Your task to perform on an android device: Open battery settings Image 0: 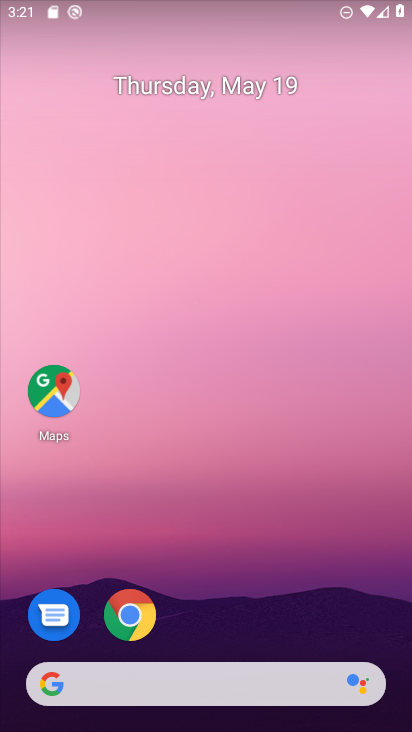
Step 0: drag from (250, 602) to (132, 72)
Your task to perform on an android device: Open battery settings Image 1: 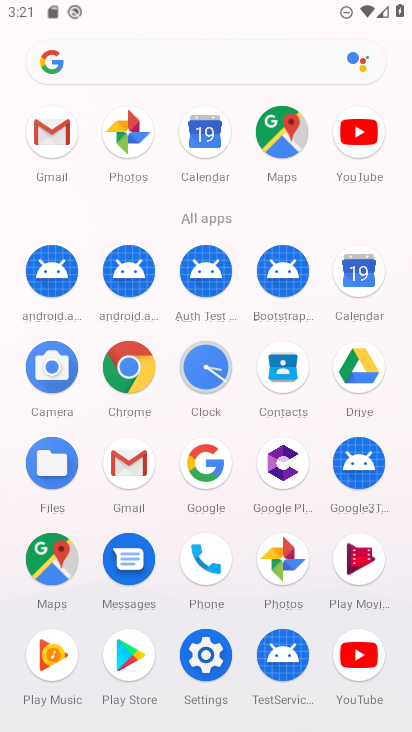
Step 1: click (214, 648)
Your task to perform on an android device: Open battery settings Image 2: 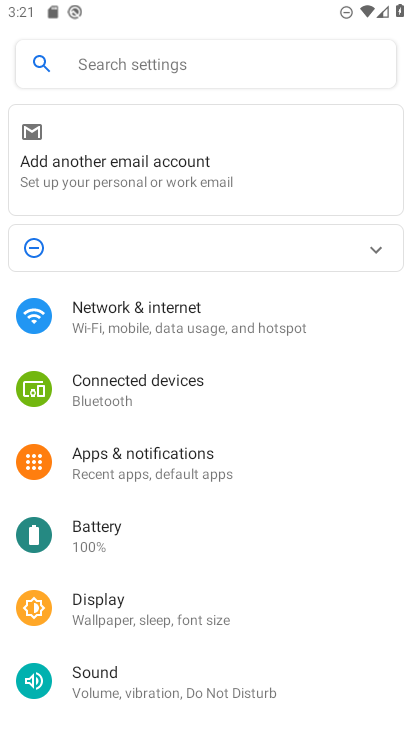
Step 2: click (151, 525)
Your task to perform on an android device: Open battery settings Image 3: 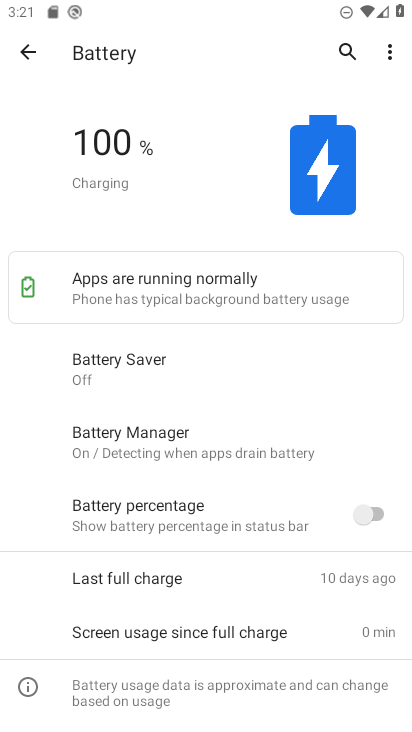
Step 3: task complete